Your task to perform on an android device: Open network settings Image 0: 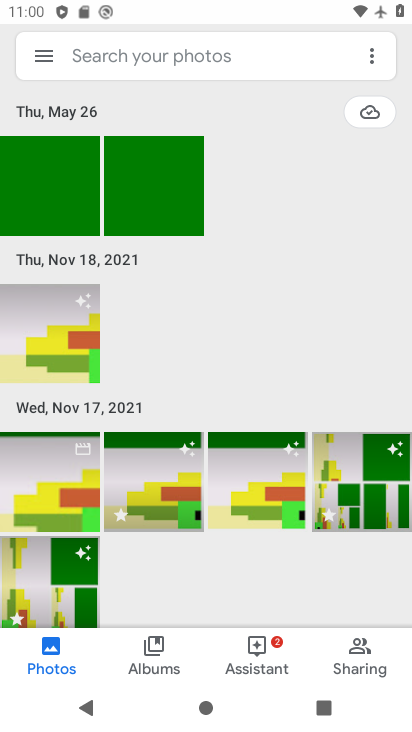
Step 0: press home button
Your task to perform on an android device: Open network settings Image 1: 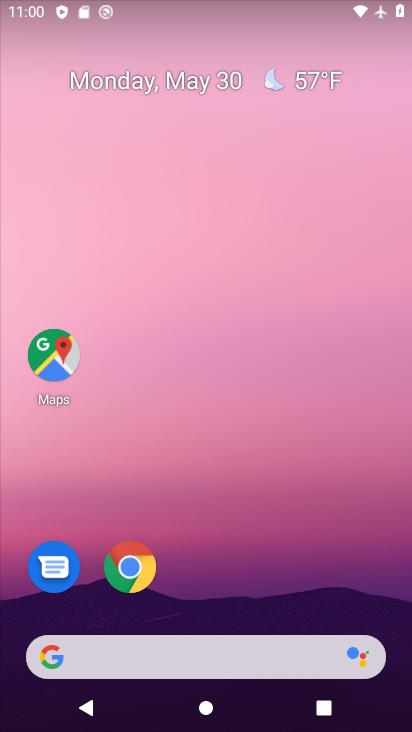
Step 1: drag from (215, 594) to (214, 199)
Your task to perform on an android device: Open network settings Image 2: 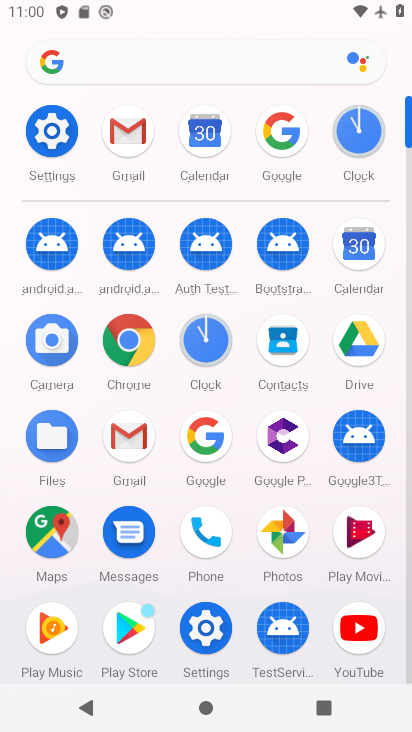
Step 2: click (64, 152)
Your task to perform on an android device: Open network settings Image 3: 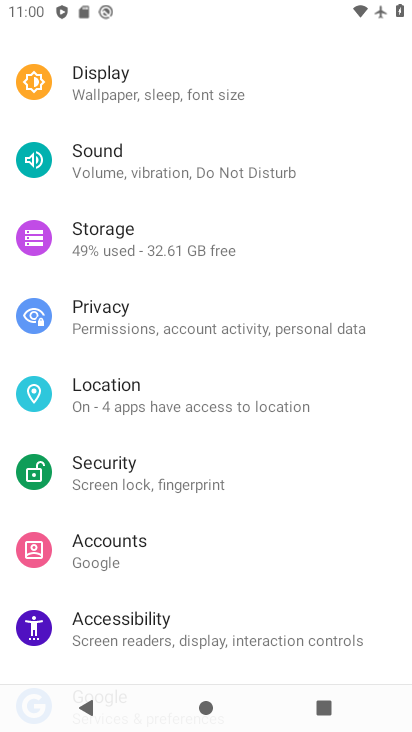
Step 3: drag from (200, 198) to (205, 548)
Your task to perform on an android device: Open network settings Image 4: 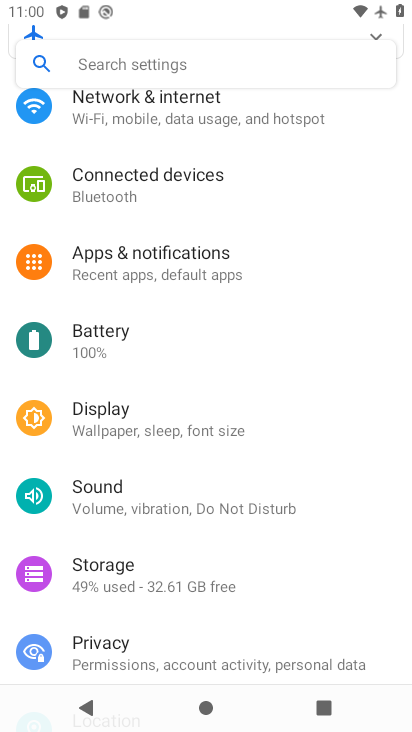
Step 4: click (200, 120)
Your task to perform on an android device: Open network settings Image 5: 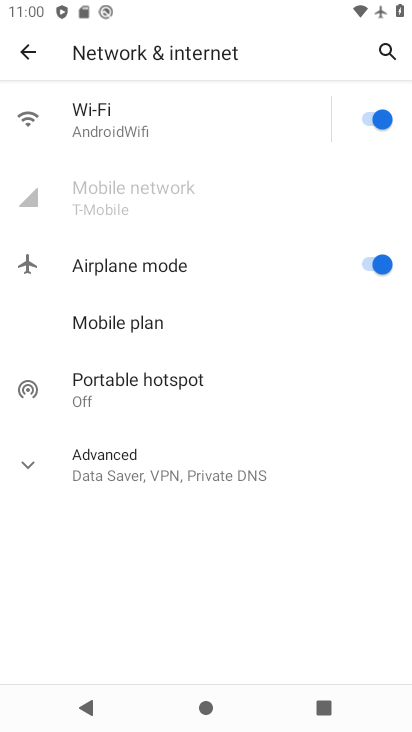
Step 5: click (155, 198)
Your task to perform on an android device: Open network settings Image 6: 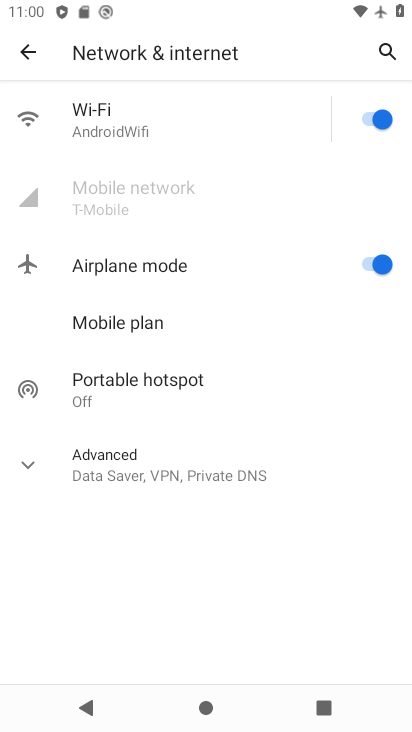
Step 6: click (128, 165)
Your task to perform on an android device: Open network settings Image 7: 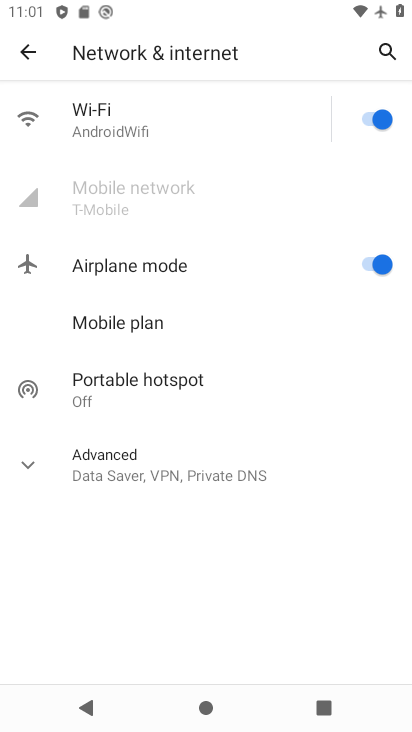
Step 7: task complete